Your task to perform on an android device: Open Google Chrome Image 0: 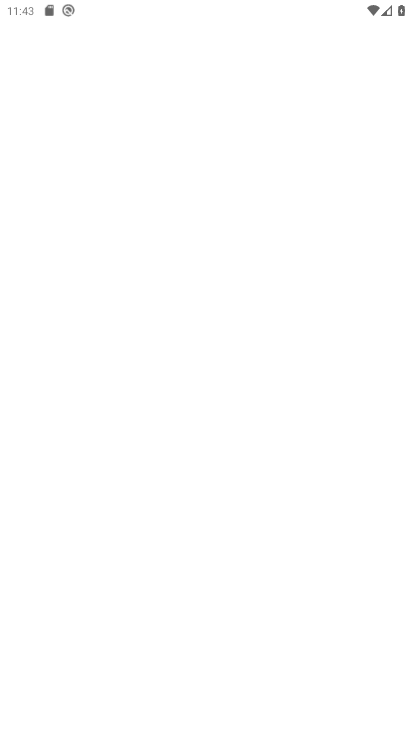
Step 0: press home button
Your task to perform on an android device: Open Google Chrome Image 1: 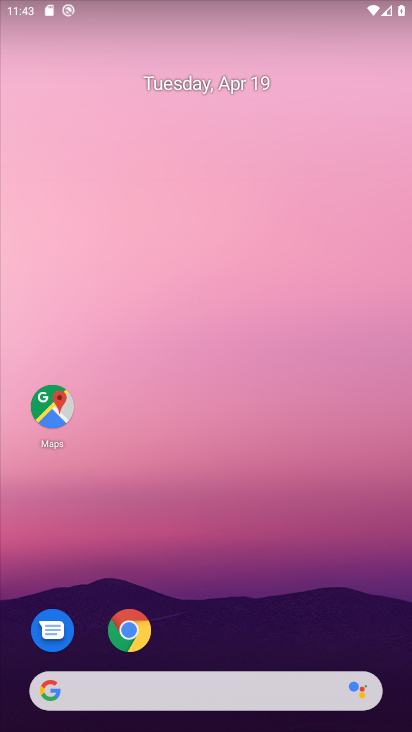
Step 1: click (131, 627)
Your task to perform on an android device: Open Google Chrome Image 2: 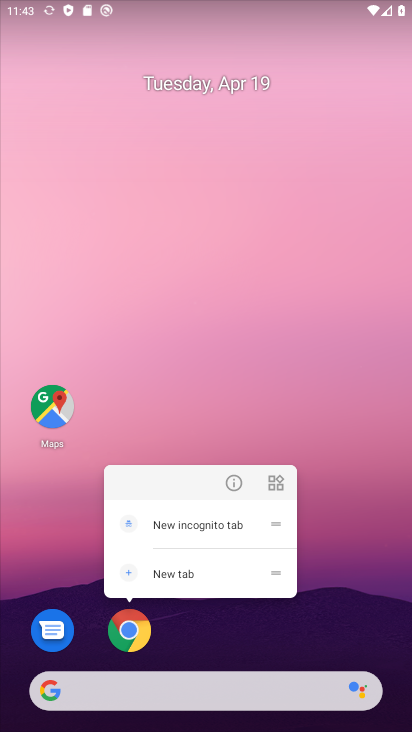
Step 2: click (131, 627)
Your task to perform on an android device: Open Google Chrome Image 3: 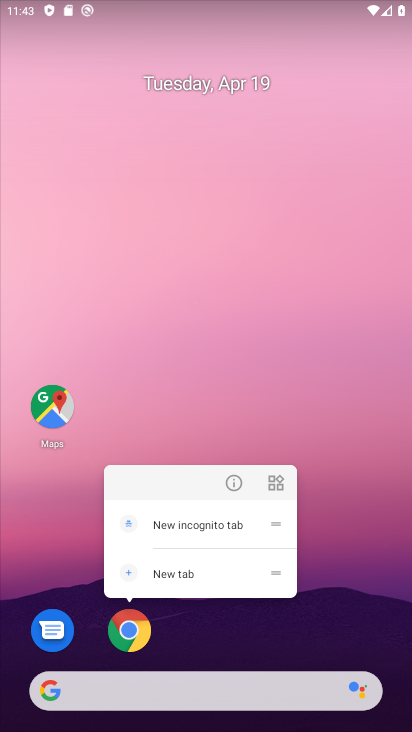
Step 3: click (125, 629)
Your task to perform on an android device: Open Google Chrome Image 4: 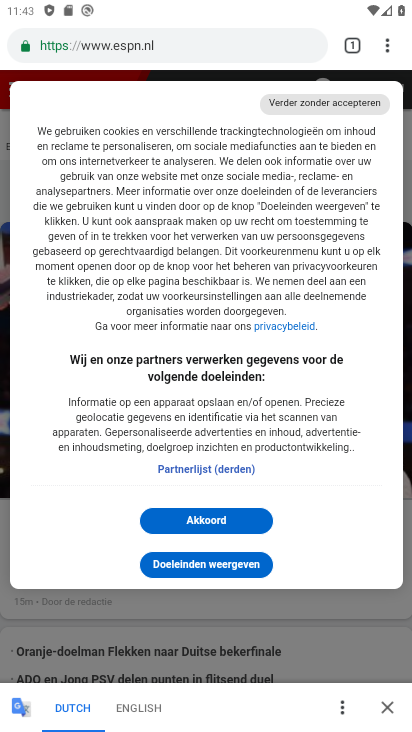
Step 4: task complete